Your task to perform on an android device: Check the news Image 0: 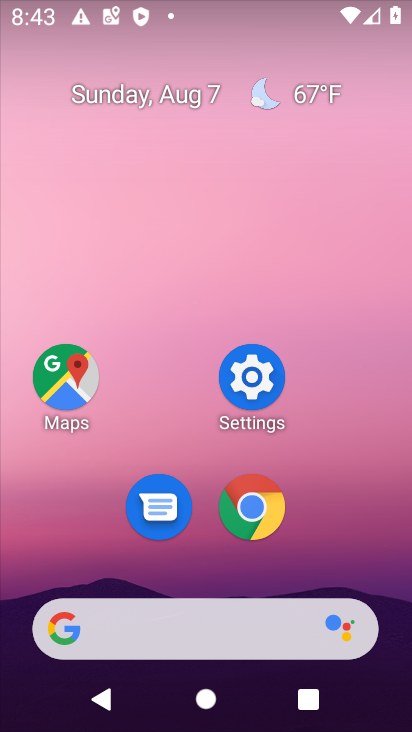
Step 0: click (159, 626)
Your task to perform on an android device: Check the news Image 1: 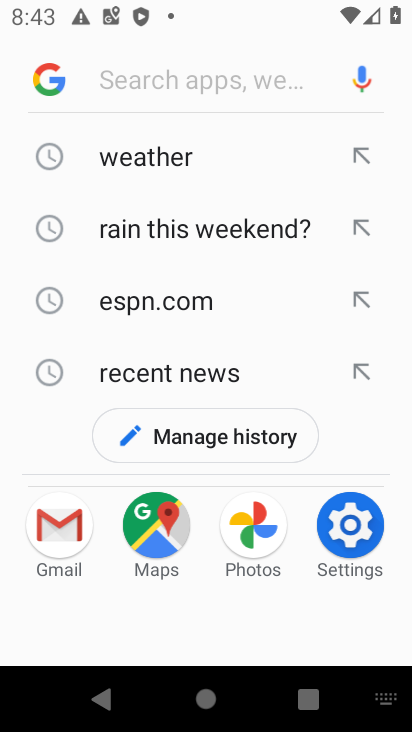
Step 1: click (211, 370)
Your task to perform on an android device: Check the news Image 2: 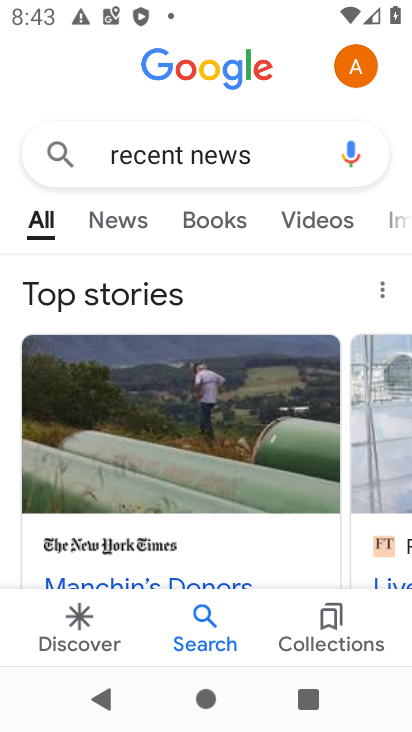
Step 2: click (115, 215)
Your task to perform on an android device: Check the news Image 3: 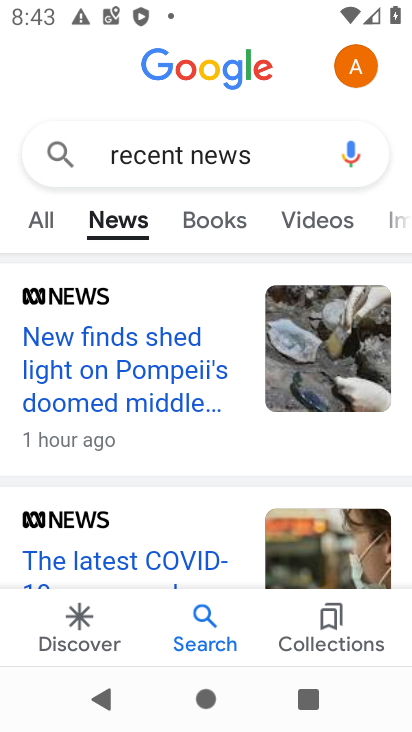
Step 3: task complete